Your task to perform on an android device: Do I have any events this weekend? Image 0: 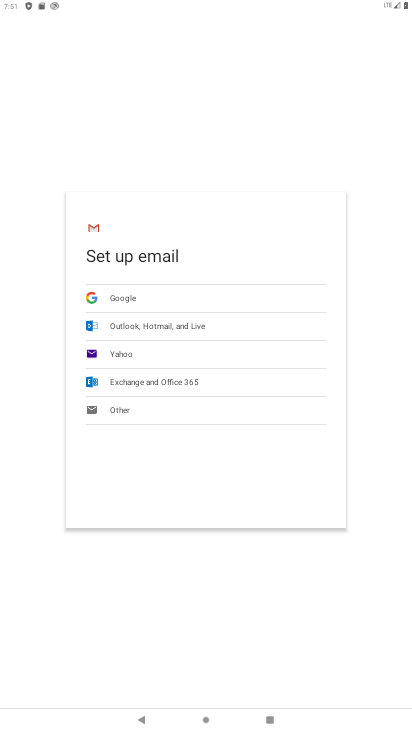
Step 0: press home button
Your task to perform on an android device: Do I have any events this weekend? Image 1: 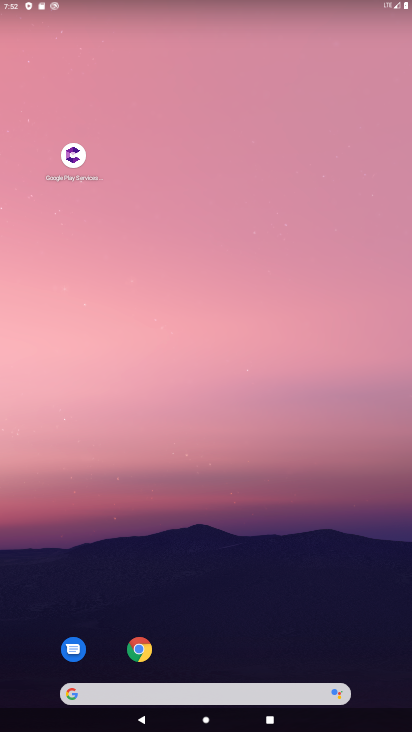
Step 1: drag from (168, 722) to (406, 178)
Your task to perform on an android device: Do I have any events this weekend? Image 2: 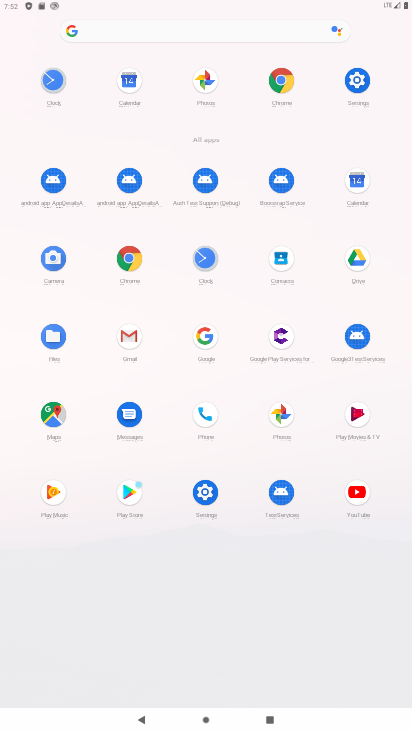
Step 2: click (356, 181)
Your task to perform on an android device: Do I have any events this weekend? Image 3: 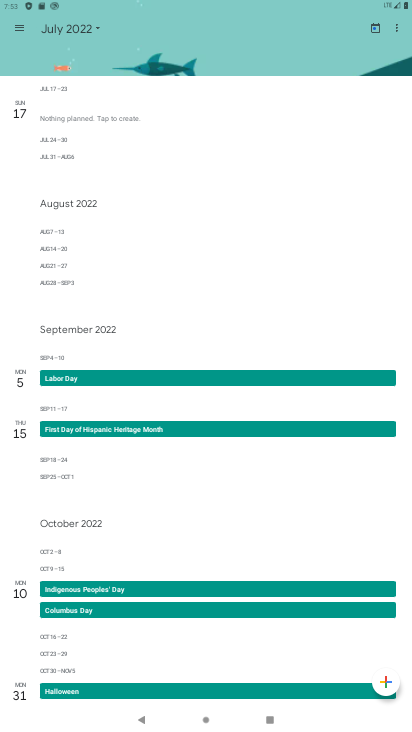
Step 3: click (371, 27)
Your task to perform on an android device: Do I have any events this weekend? Image 4: 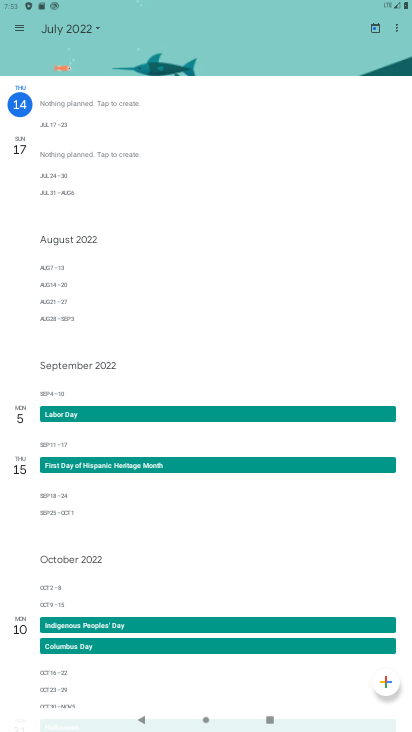
Step 4: click (379, 28)
Your task to perform on an android device: Do I have any events this weekend? Image 5: 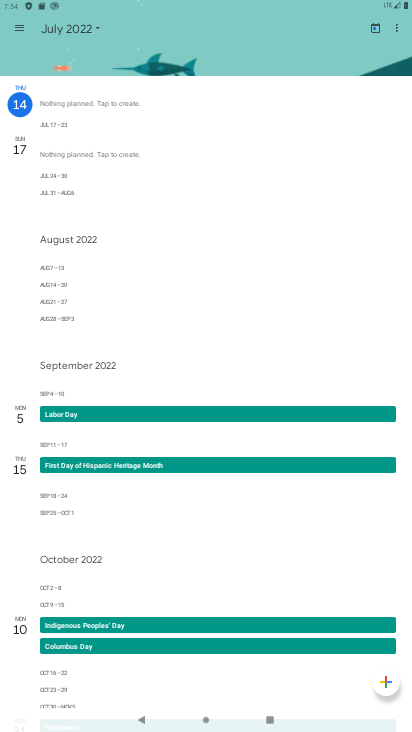
Step 5: click (72, 34)
Your task to perform on an android device: Do I have any events this weekend? Image 6: 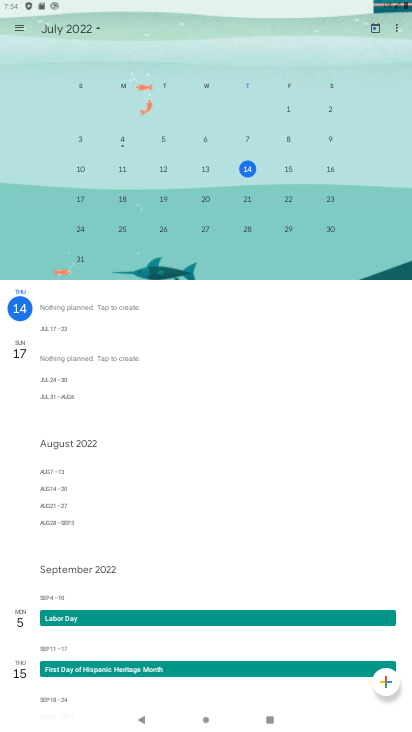
Step 6: task complete